Your task to perform on an android device: Go to Amazon Image 0: 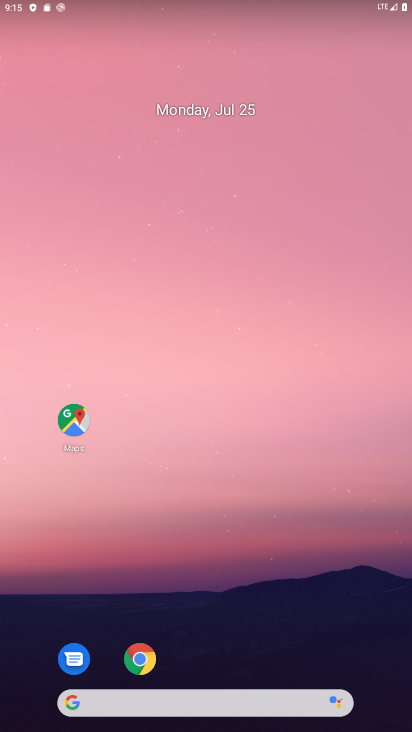
Step 0: click (138, 657)
Your task to perform on an android device: Go to Amazon Image 1: 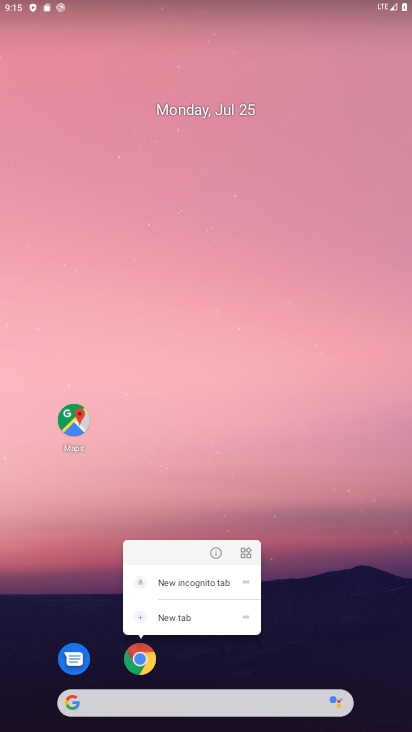
Step 1: click (135, 658)
Your task to perform on an android device: Go to Amazon Image 2: 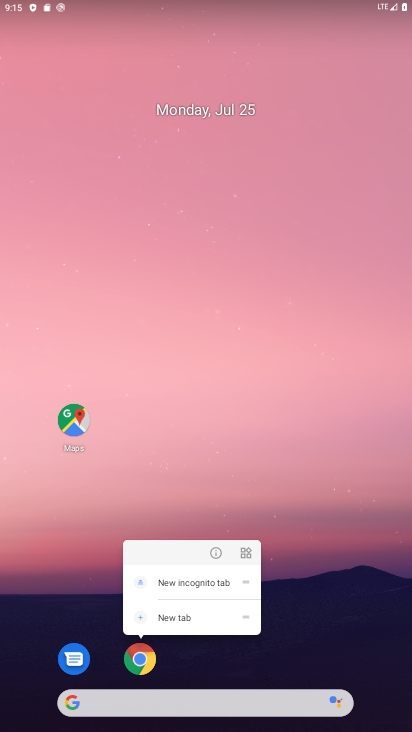
Step 2: click (135, 658)
Your task to perform on an android device: Go to Amazon Image 3: 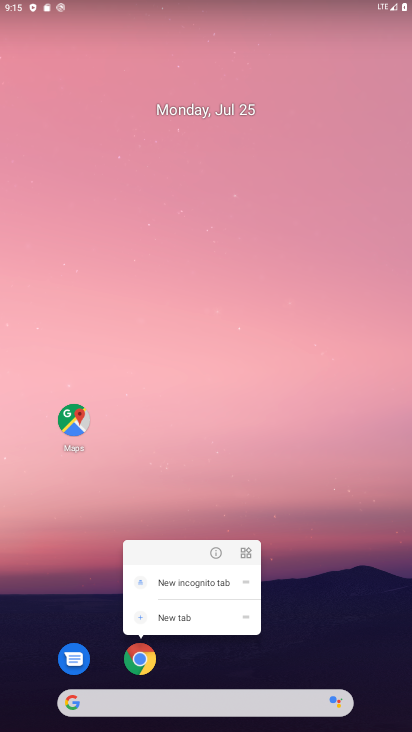
Step 3: click (135, 658)
Your task to perform on an android device: Go to Amazon Image 4: 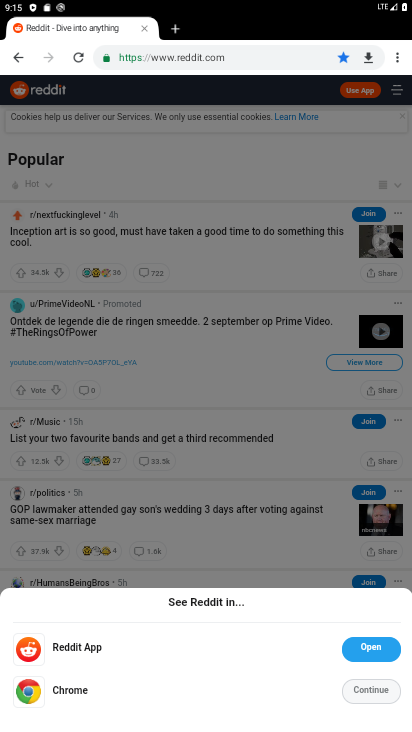
Step 4: click (161, 58)
Your task to perform on an android device: Go to Amazon Image 5: 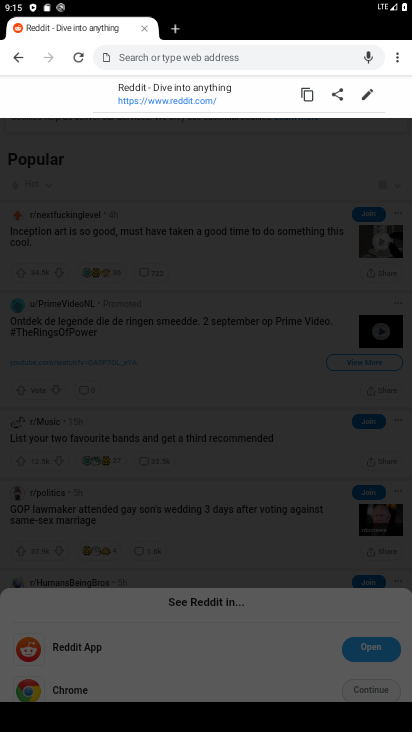
Step 5: type "Amazon"
Your task to perform on an android device: Go to Amazon Image 6: 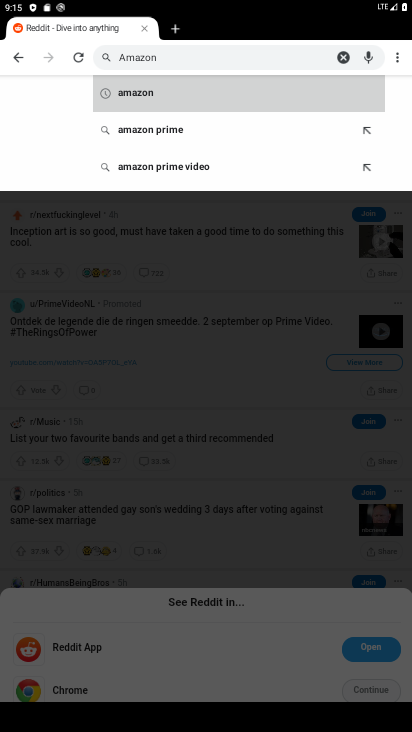
Step 6: click (183, 91)
Your task to perform on an android device: Go to Amazon Image 7: 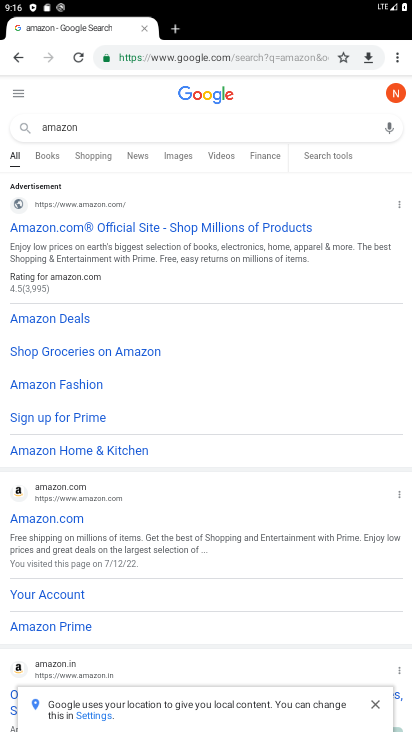
Step 7: task complete